Your task to perform on an android device: Go to network settings Image 0: 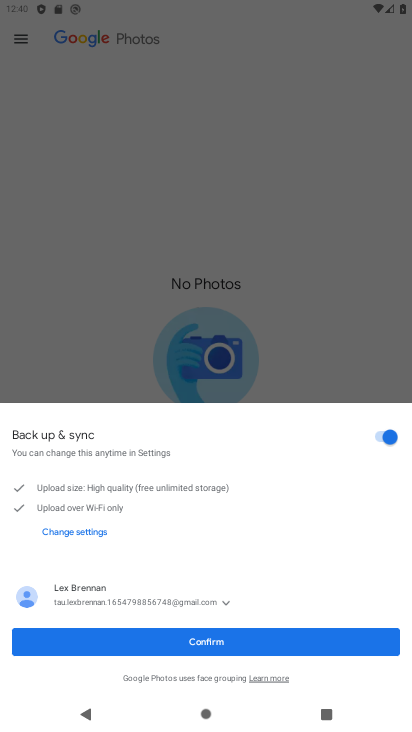
Step 0: click (225, 642)
Your task to perform on an android device: Go to network settings Image 1: 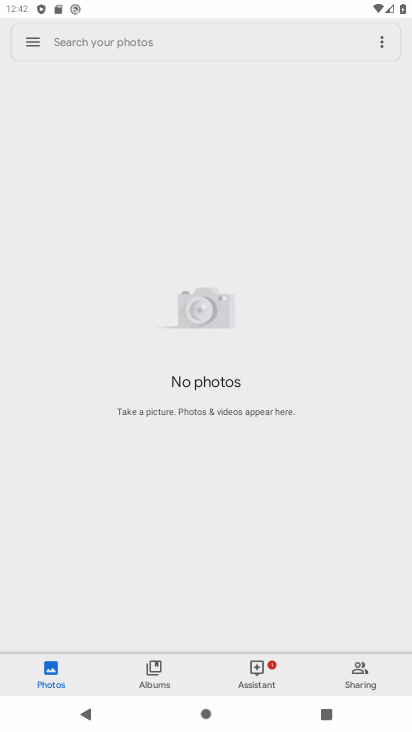
Step 1: press home button
Your task to perform on an android device: Go to network settings Image 2: 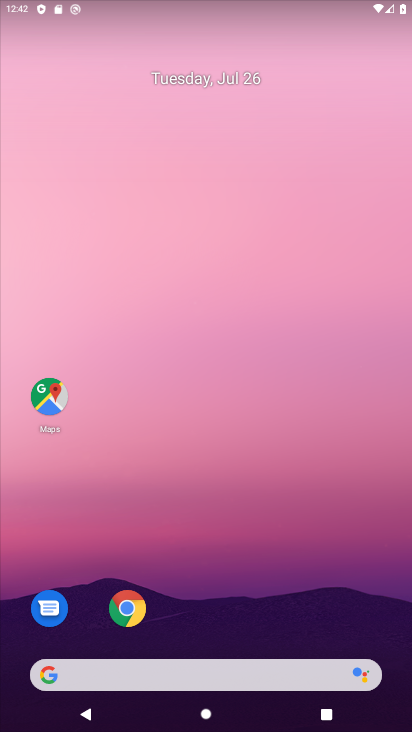
Step 2: drag from (211, 566) to (272, 70)
Your task to perform on an android device: Go to network settings Image 3: 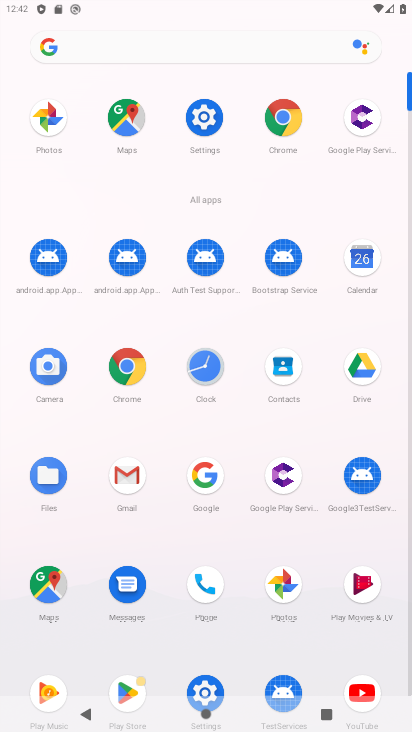
Step 3: click (201, 127)
Your task to perform on an android device: Go to network settings Image 4: 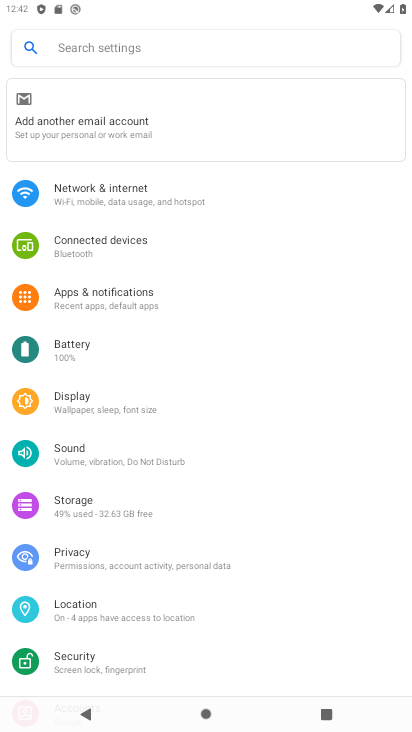
Step 4: click (120, 193)
Your task to perform on an android device: Go to network settings Image 5: 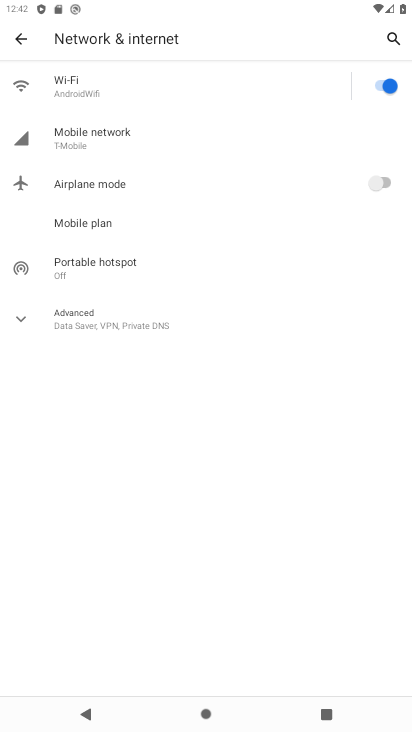
Step 5: task complete